Your task to perform on an android device: toggle wifi Image 0: 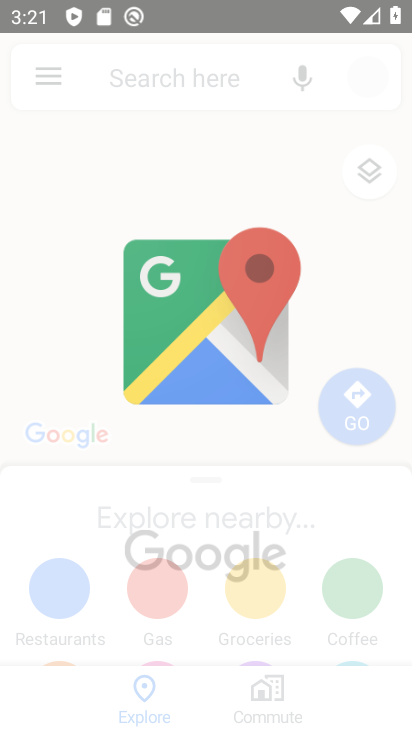
Step 0: drag from (361, 594) to (293, 329)
Your task to perform on an android device: toggle wifi Image 1: 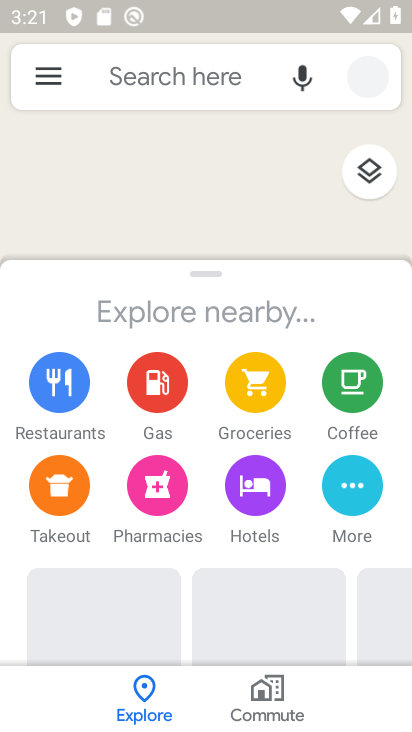
Step 1: press home button
Your task to perform on an android device: toggle wifi Image 2: 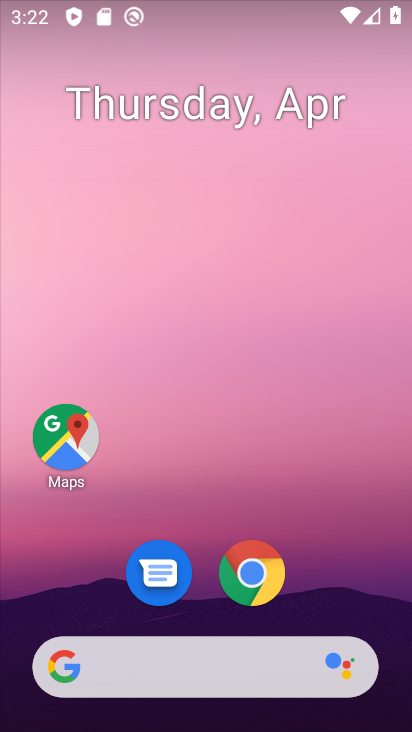
Step 2: drag from (247, 6) to (282, 494)
Your task to perform on an android device: toggle wifi Image 3: 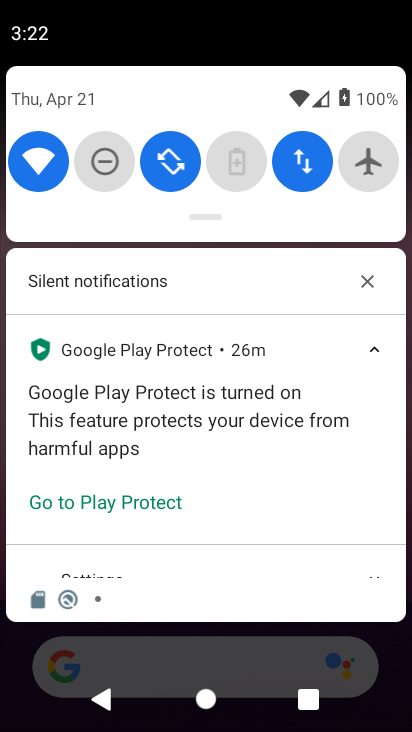
Step 3: click (44, 156)
Your task to perform on an android device: toggle wifi Image 4: 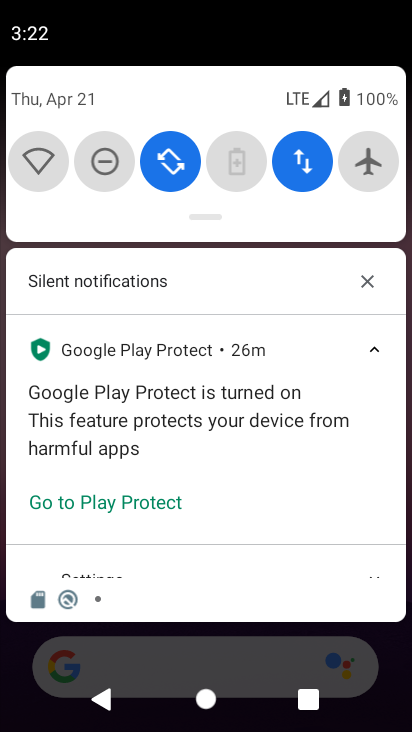
Step 4: task complete